Your task to perform on an android device: turn off javascript in the chrome app Image 0: 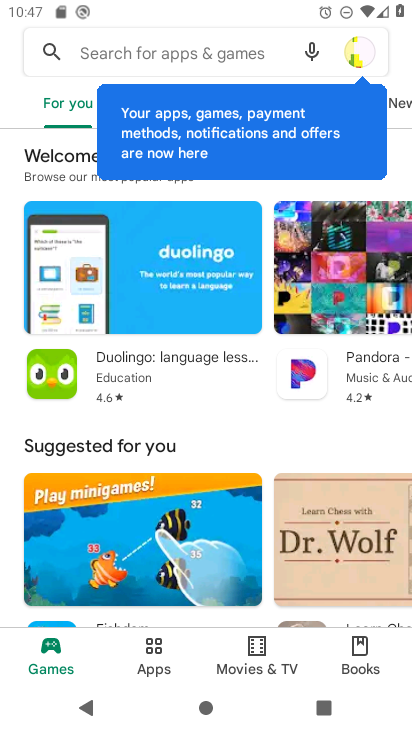
Step 0: press home button
Your task to perform on an android device: turn off javascript in the chrome app Image 1: 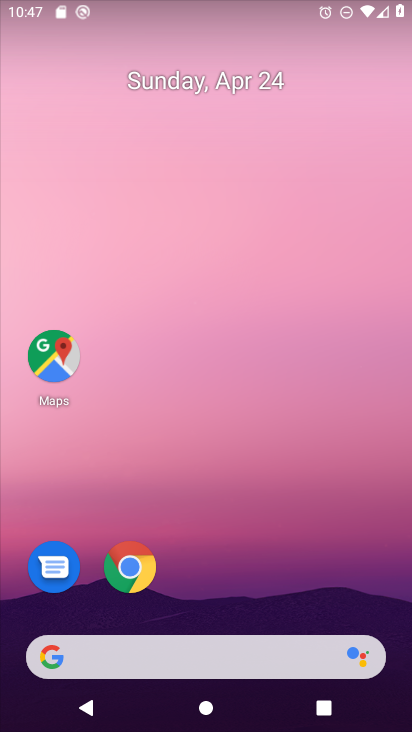
Step 1: drag from (136, 286) to (136, 172)
Your task to perform on an android device: turn off javascript in the chrome app Image 2: 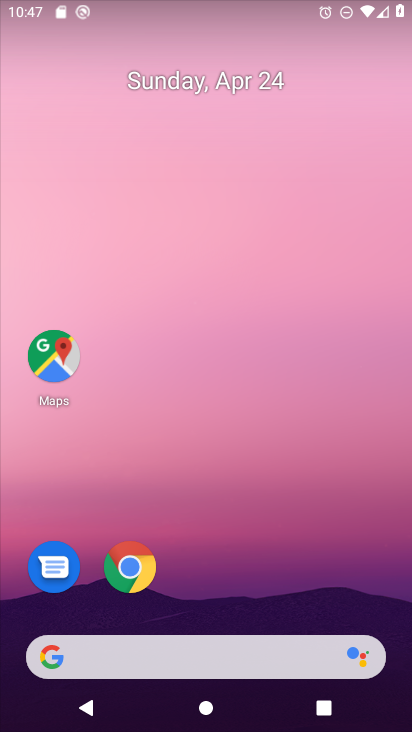
Step 2: drag from (121, 571) to (113, 60)
Your task to perform on an android device: turn off javascript in the chrome app Image 3: 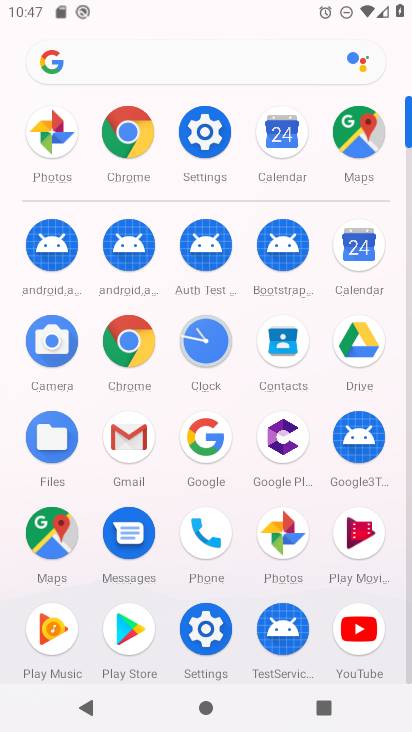
Step 3: click (132, 338)
Your task to perform on an android device: turn off javascript in the chrome app Image 4: 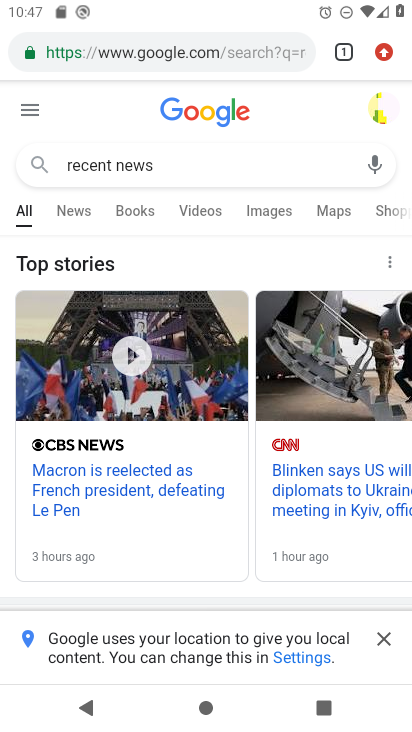
Step 4: click (385, 44)
Your task to perform on an android device: turn off javascript in the chrome app Image 5: 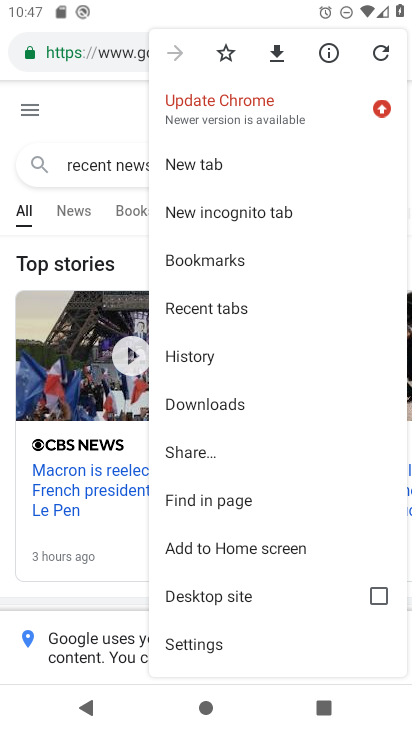
Step 5: click (212, 642)
Your task to perform on an android device: turn off javascript in the chrome app Image 6: 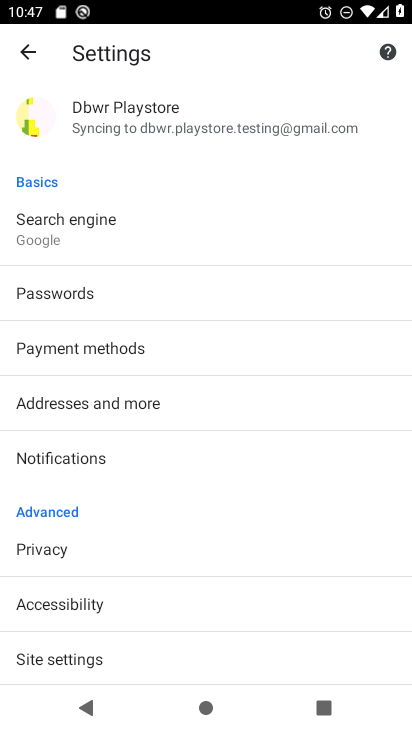
Step 6: click (68, 658)
Your task to perform on an android device: turn off javascript in the chrome app Image 7: 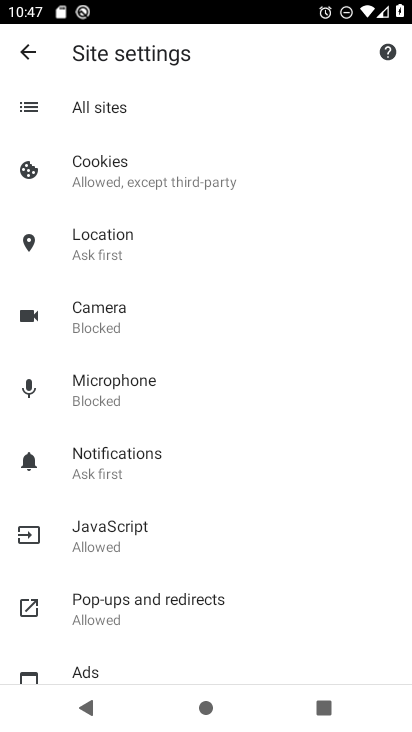
Step 7: click (119, 525)
Your task to perform on an android device: turn off javascript in the chrome app Image 8: 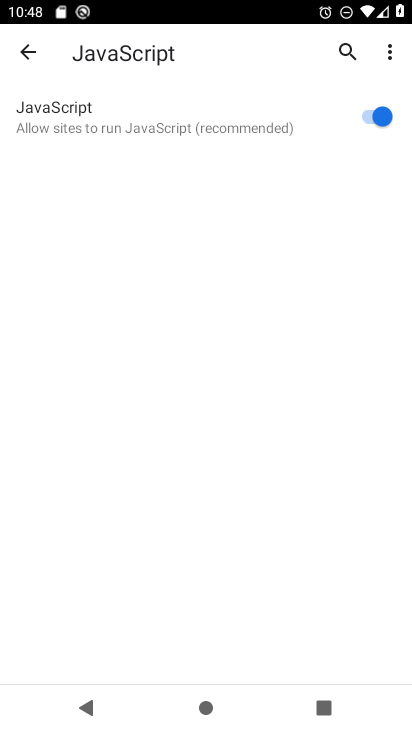
Step 8: click (376, 120)
Your task to perform on an android device: turn off javascript in the chrome app Image 9: 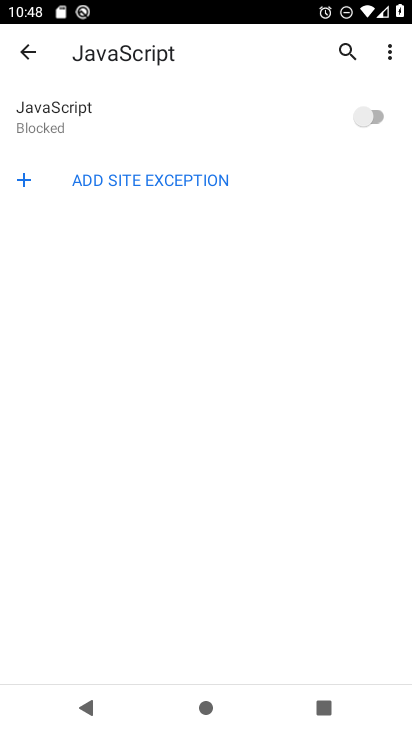
Step 9: task complete